Your task to perform on an android device: Search for sushi restaurants on Maps Image 0: 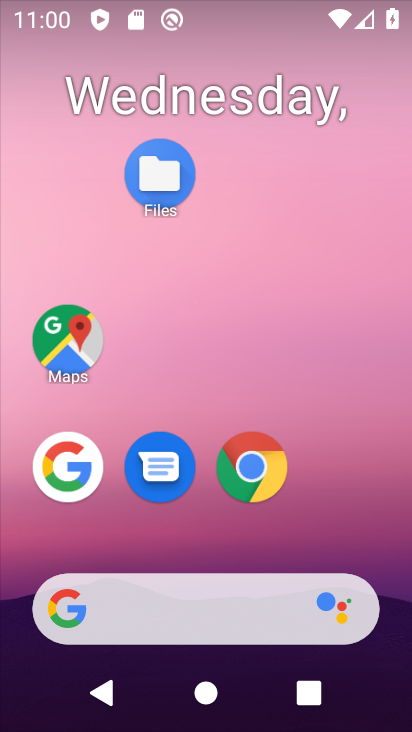
Step 0: click (70, 339)
Your task to perform on an android device: Search for sushi restaurants on Maps Image 1: 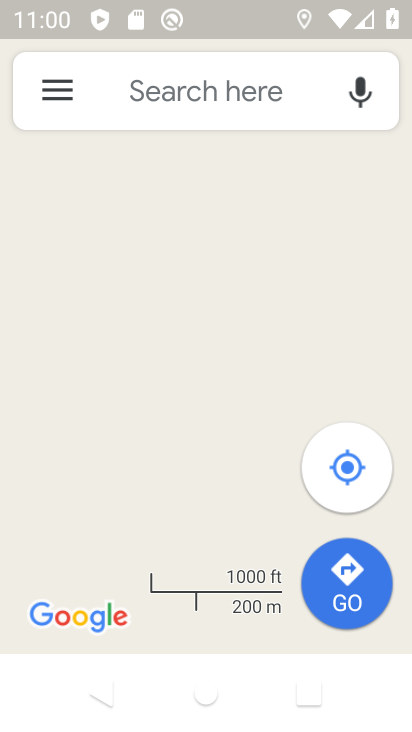
Step 1: click (191, 118)
Your task to perform on an android device: Search for sushi restaurants on Maps Image 2: 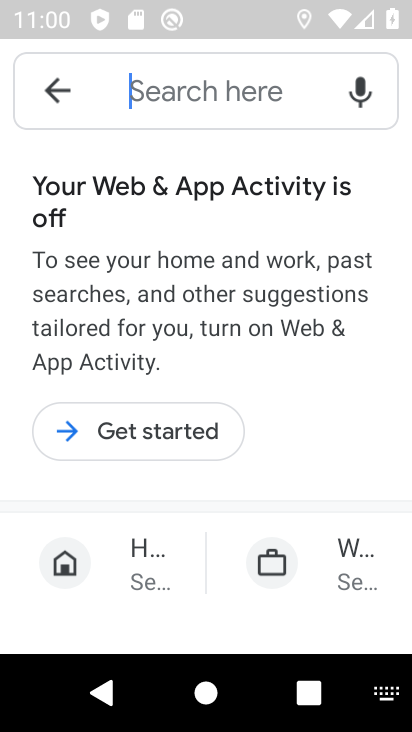
Step 2: click (135, 441)
Your task to perform on an android device: Search for sushi restaurants on Maps Image 3: 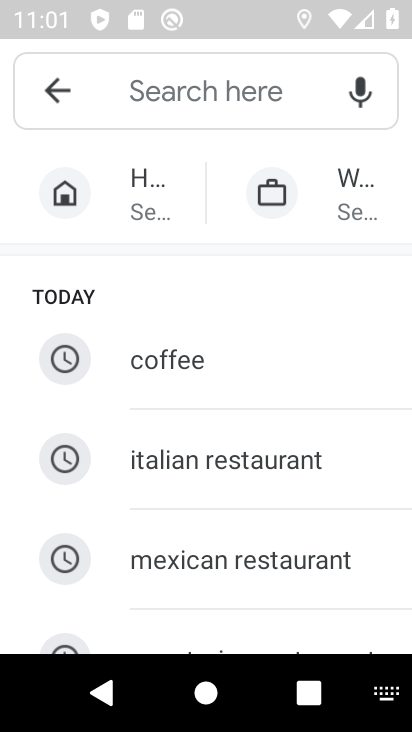
Step 3: drag from (187, 521) to (152, 182)
Your task to perform on an android device: Search for sushi restaurants on Maps Image 4: 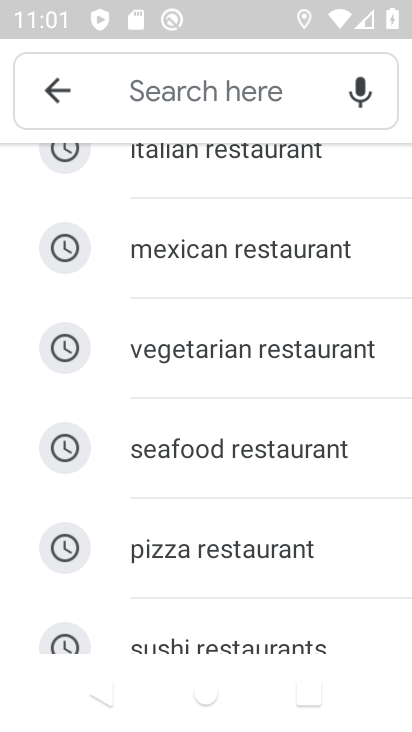
Step 4: click (170, 638)
Your task to perform on an android device: Search for sushi restaurants on Maps Image 5: 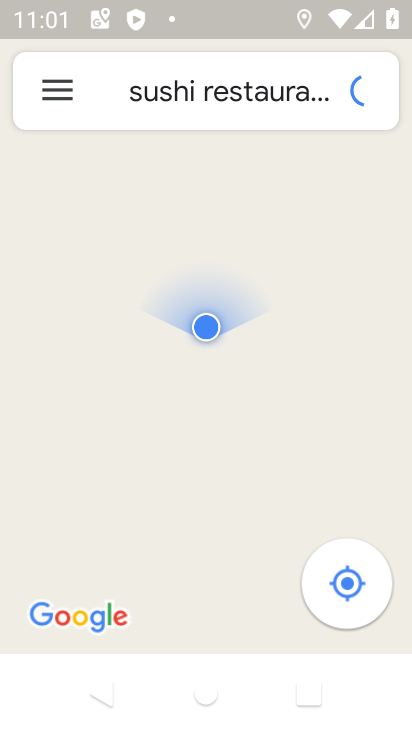
Step 5: task complete